Your task to perform on an android device: Open calendar and show me the fourth week of next month Image 0: 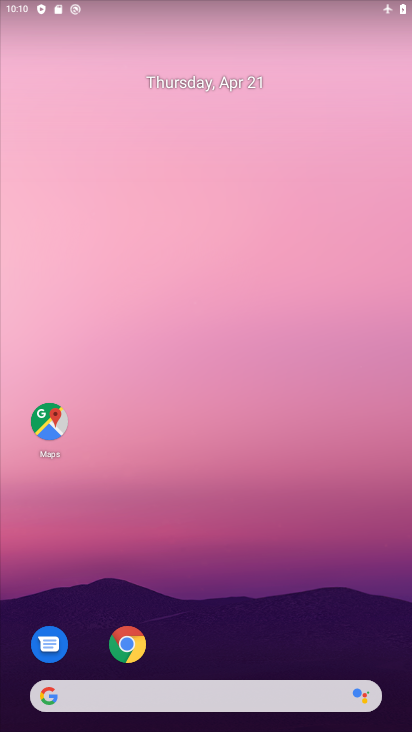
Step 0: drag from (183, 612) to (232, 249)
Your task to perform on an android device: Open calendar and show me the fourth week of next month Image 1: 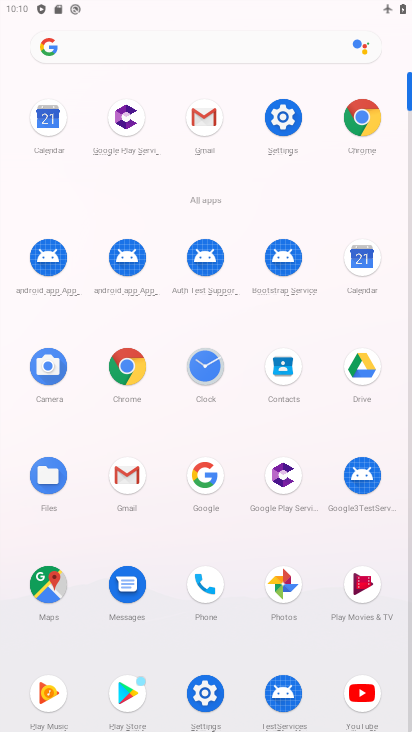
Step 1: click (365, 269)
Your task to perform on an android device: Open calendar and show me the fourth week of next month Image 2: 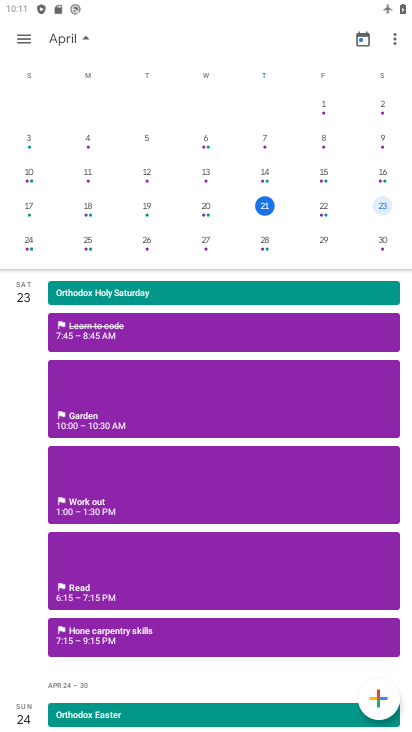
Step 2: click (59, 40)
Your task to perform on an android device: Open calendar and show me the fourth week of next month Image 3: 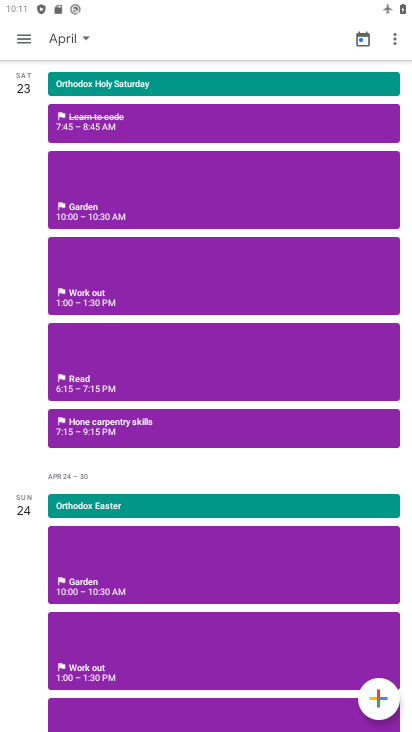
Step 3: click (23, 39)
Your task to perform on an android device: Open calendar and show me the fourth week of next month Image 4: 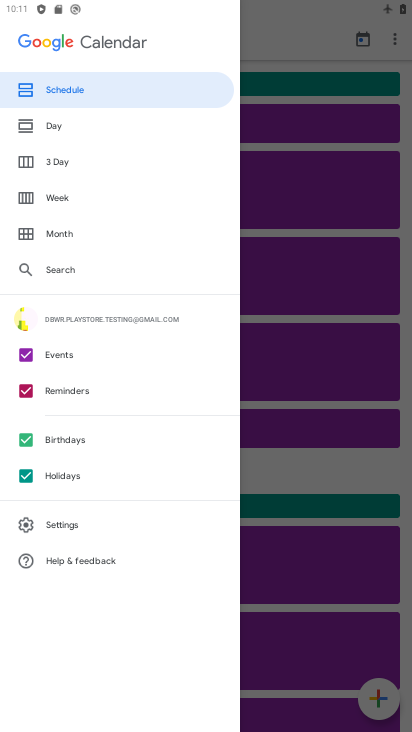
Step 4: click (59, 199)
Your task to perform on an android device: Open calendar and show me the fourth week of next month Image 5: 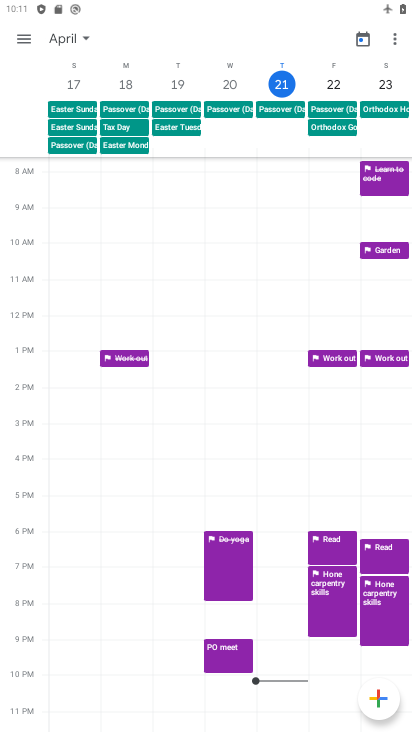
Step 5: click (57, 41)
Your task to perform on an android device: Open calendar and show me the fourth week of next month Image 6: 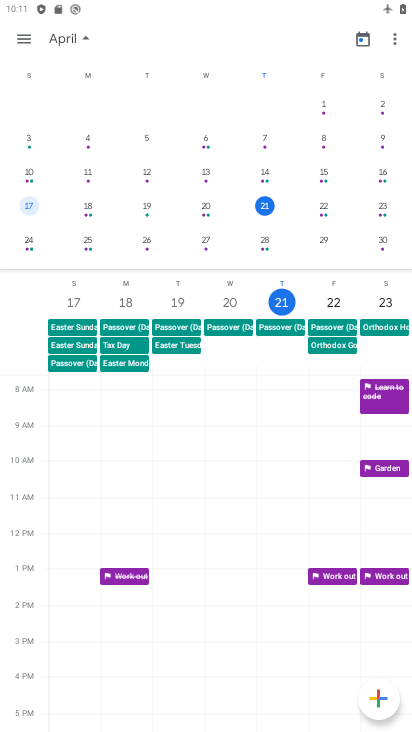
Step 6: click (62, 34)
Your task to perform on an android device: Open calendar and show me the fourth week of next month Image 7: 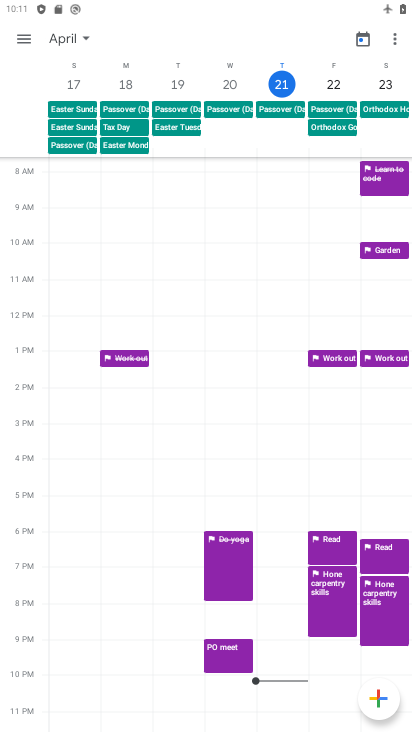
Step 7: click (60, 42)
Your task to perform on an android device: Open calendar and show me the fourth week of next month Image 8: 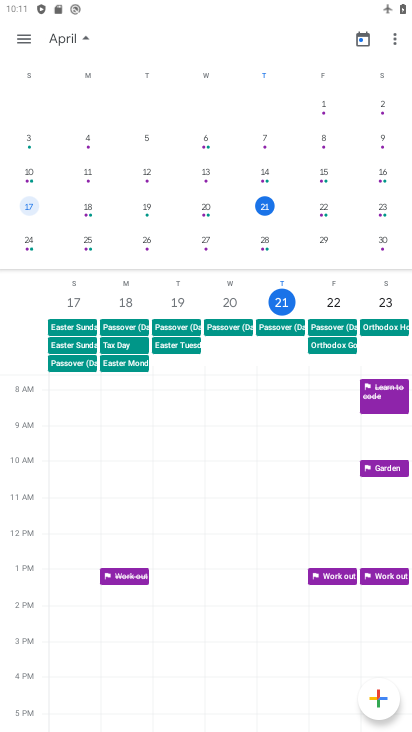
Step 8: drag from (361, 205) to (4, 171)
Your task to perform on an android device: Open calendar and show me the fourth week of next month Image 9: 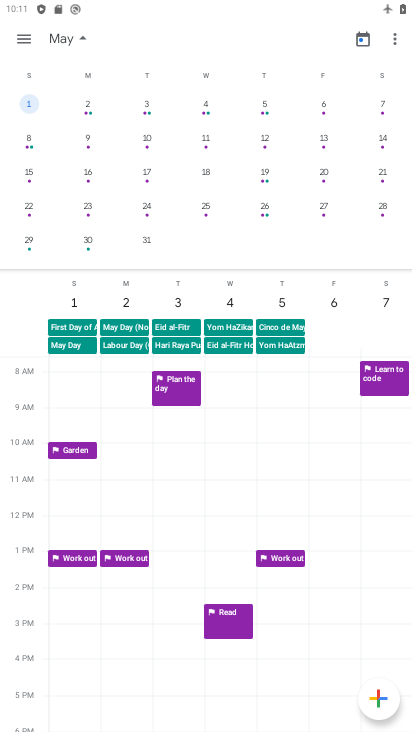
Step 9: click (24, 210)
Your task to perform on an android device: Open calendar and show me the fourth week of next month Image 10: 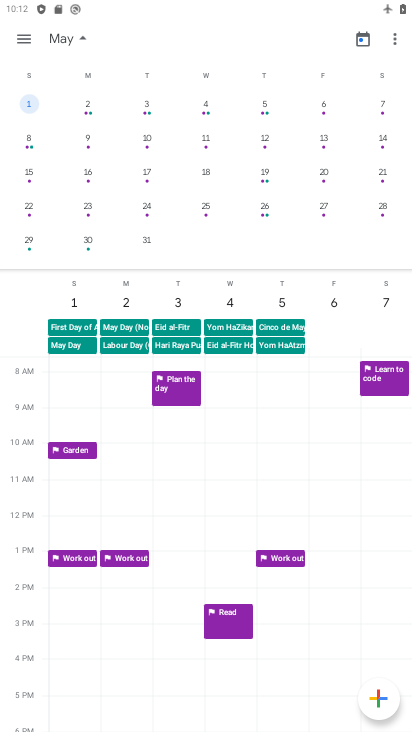
Step 10: click (32, 203)
Your task to perform on an android device: Open calendar and show me the fourth week of next month Image 11: 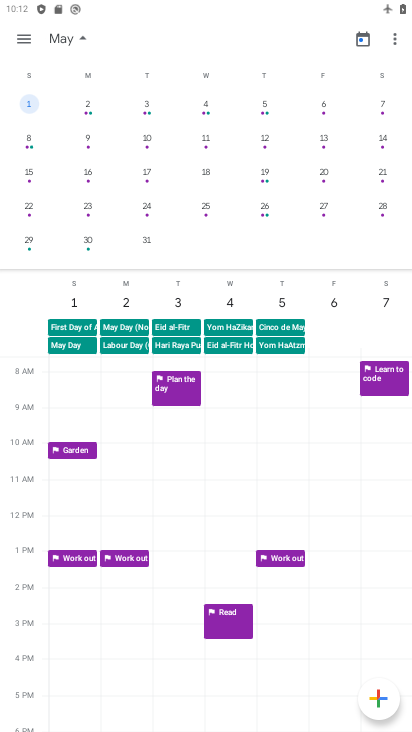
Step 11: click (32, 204)
Your task to perform on an android device: Open calendar and show me the fourth week of next month Image 12: 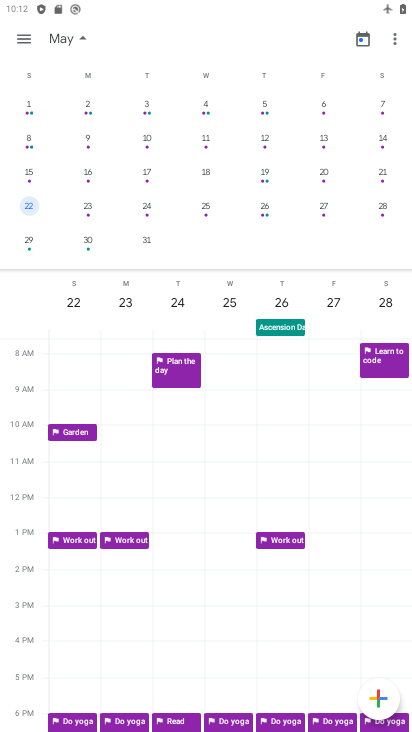
Step 12: click (32, 204)
Your task to perform on an android device: Open calendar and show me the fourth week of next month Image 13: 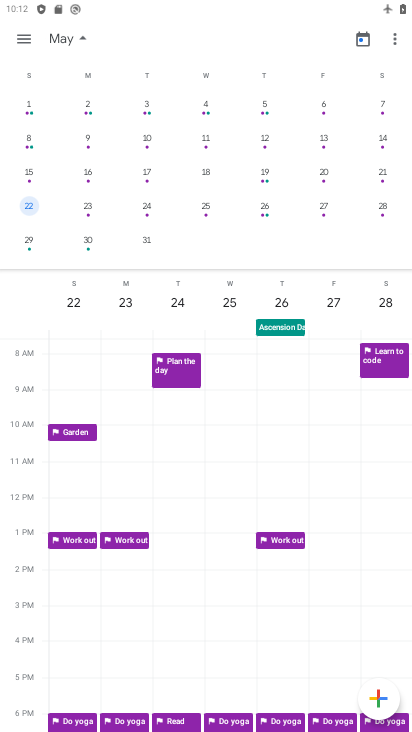
Step 13: click (21, 37)
Your task to perform on an android device: Open calendar and show me the fourth week of next month Image 14: 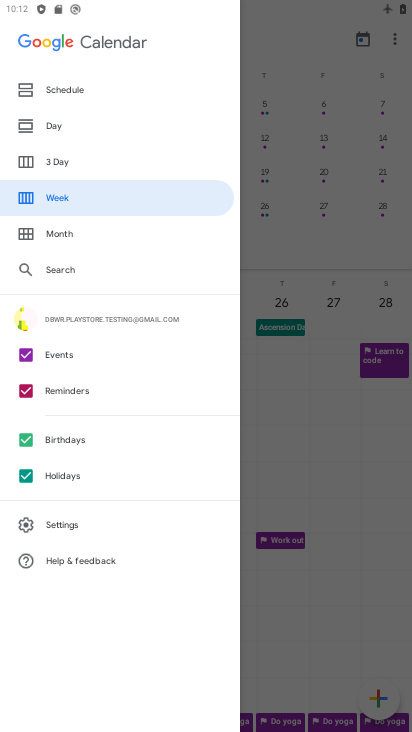
Step 14: task complete